Your task to perform on an android device: Open calendar and show me the fourth week of next month Image 0: 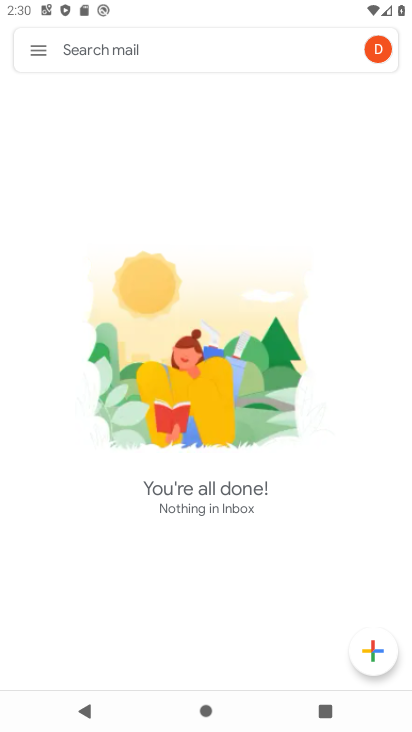
Step 0: press home button
Your task to perform on an android device: Open calendar and show me the fourth week of next month Image 1: 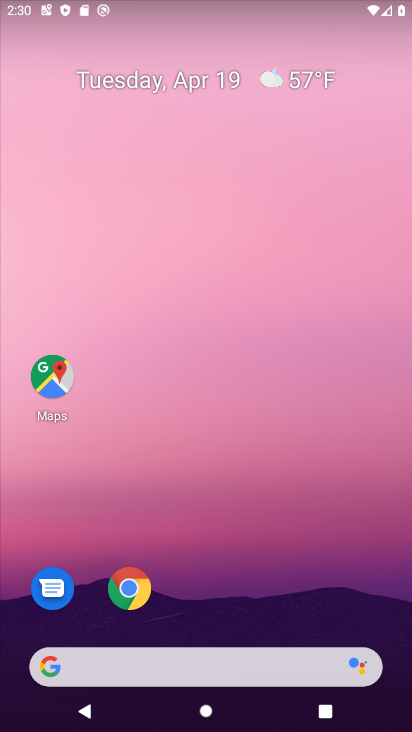
Step 1: drag from (294, 501) to (326, 115)
Your task to perform on an android device: Open calendar and show me the fourth week of next month Image 2: 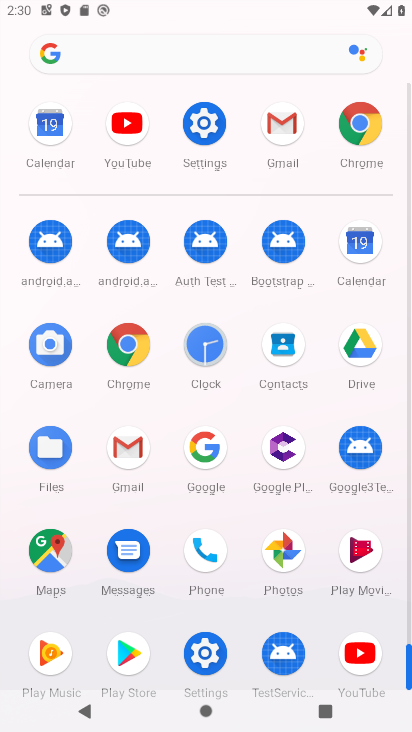
Step 2: click (353, 244)
Your task to perform on an android device: Open calendar and show me the fourth week of next month Image 3: 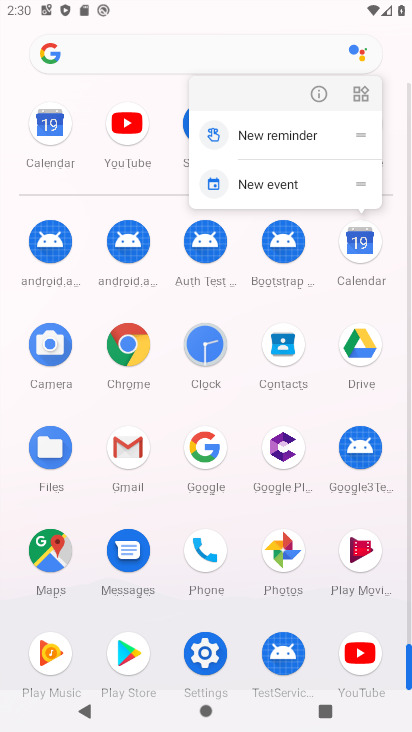
Step 3: click (353, 244)
Your task to perform on an android device: Open calendar and show me the fourth week of next month Image 4: 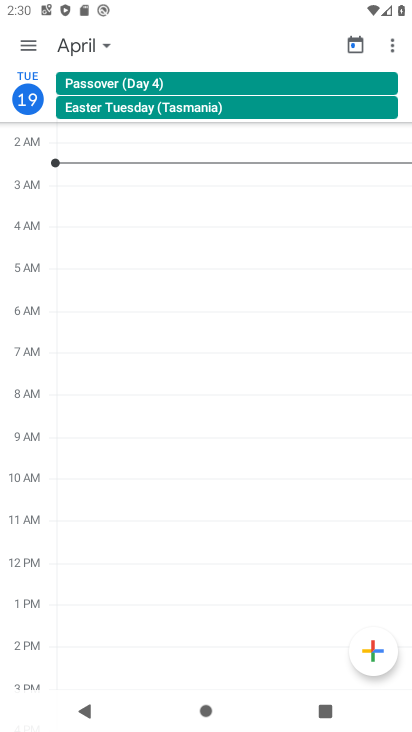
Step 4: click (30, 45)
Your task to perform on an android device: Open calendar and show me the fourth week of next month Image 5: 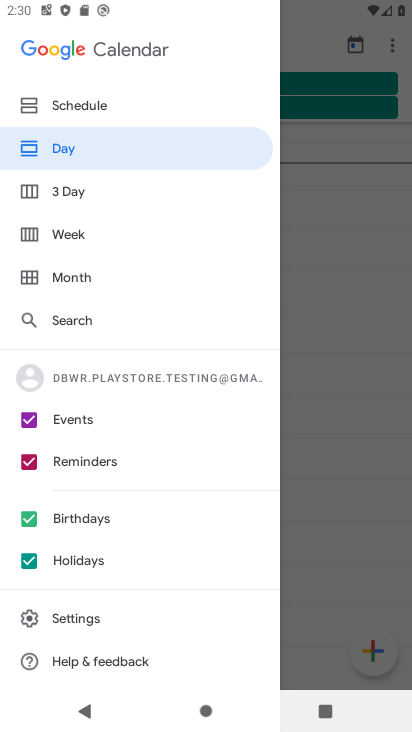
Step 5: click (51, 223)
Your task to perform on an android device: Open calendar and show me the fourth week of next month Image 6: 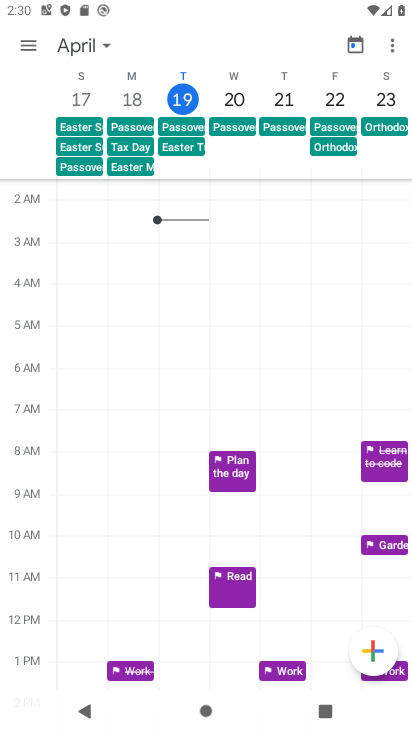
Step 6: task complete